Your task to perform on an android device: change the clock style Image 0: 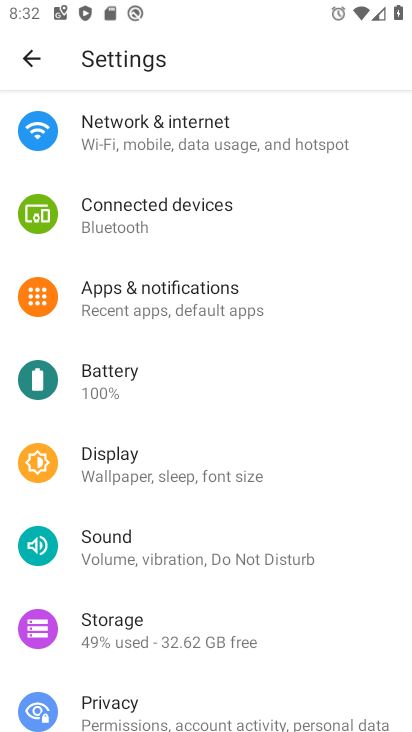
Step 0: press home button
Your task to perform on an android device: change the clock style Image 1: 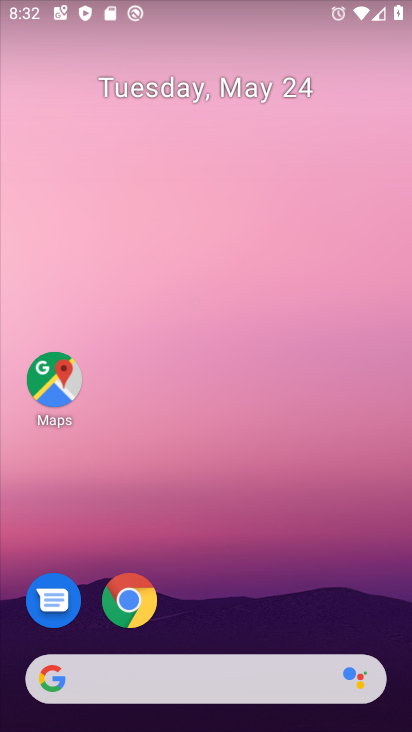
Step 1: drag from (215, 730) to (220, 59)
Your task to perform on an android device: change the clock style Image 2: 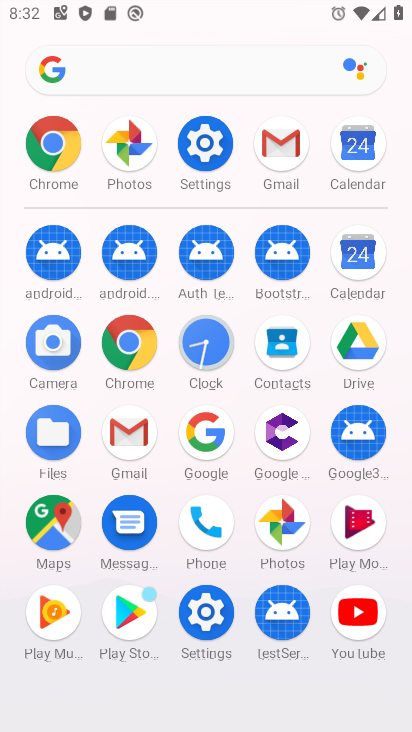
Step 2: drag from (252, 626) to (246, 156)
Your task to perform on an android device: change the clock style Image 3: 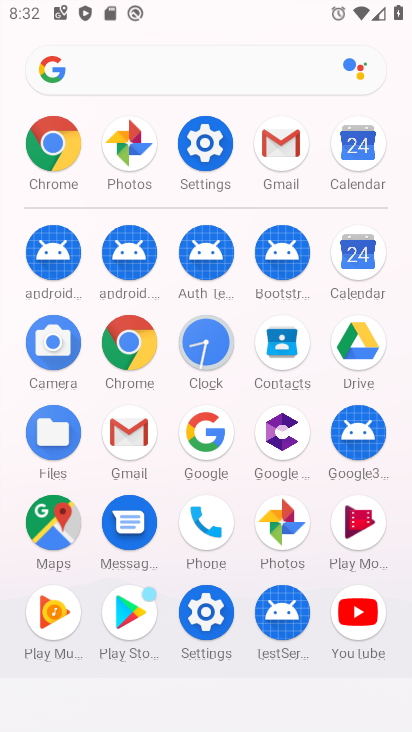
Step 3: click (202, 343)
Your task to perform on an android device: change the clock style Image 4: 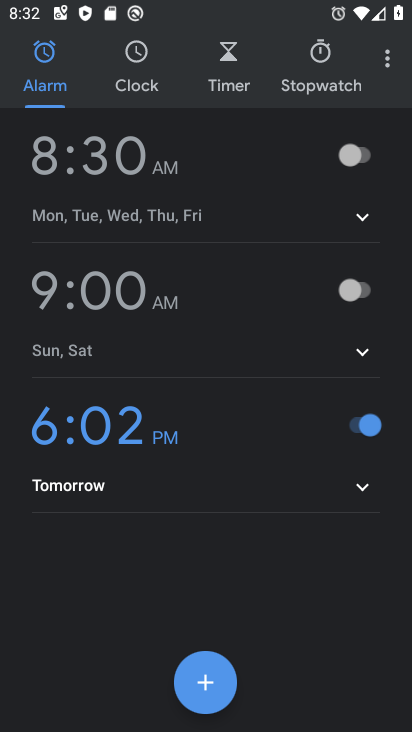
Step 4: click (388, 64)
Your task to perform on an android device: change the clock style Image 5: 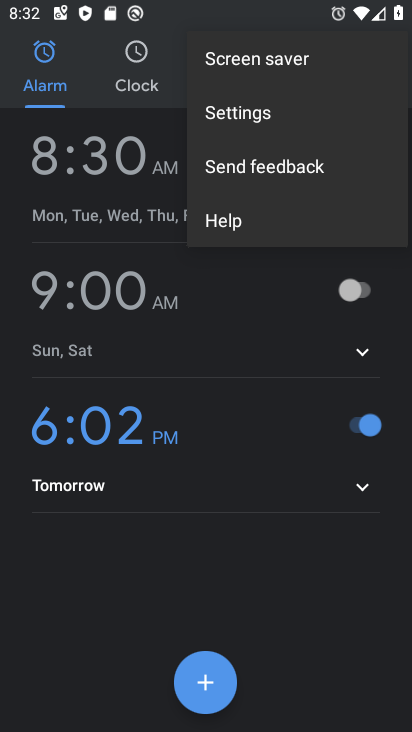
Step 5: click (237, 112)
Your task to perform on an android device: change the clock style Image 6: 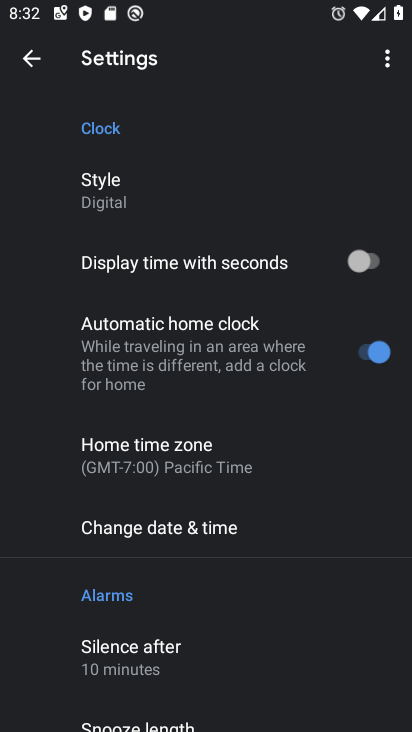
Step 6: click (103, 207)
Your task to perform on an android device: change the clock style Image 7: 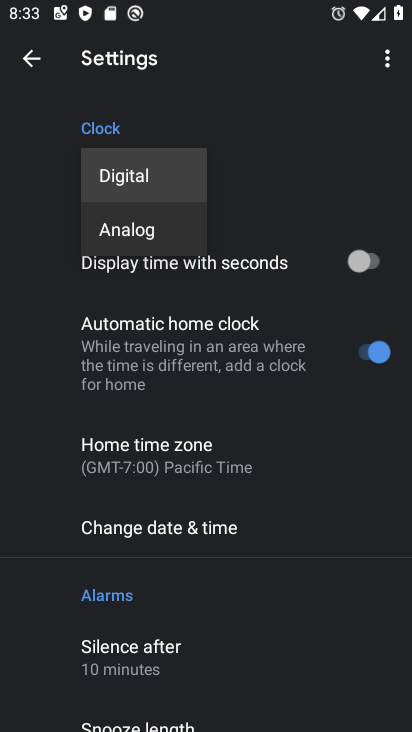
Step 7: click (109, 232)
Your task to perform on an android device: change the clock style Image 8: 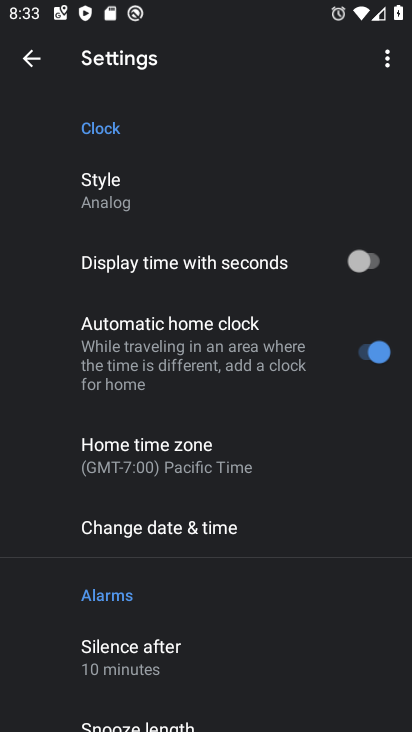
Step 8: task complete